Your task to perform on an android device: Do I have any events tomorrow? Image 0: 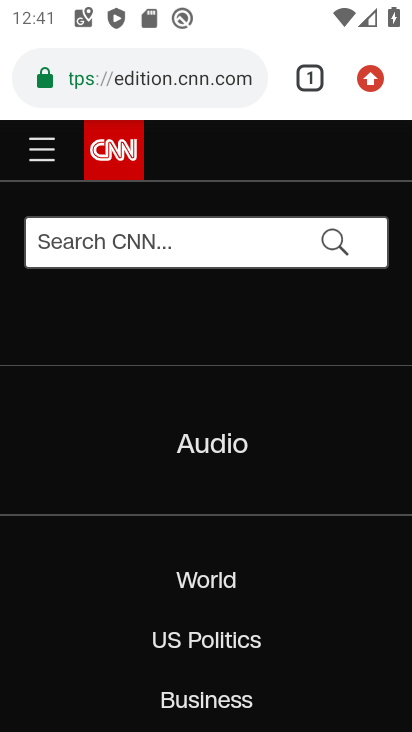
Step 0: press back button
Your task to perform on an android device: Do I have any events tomorrow? Image 1: 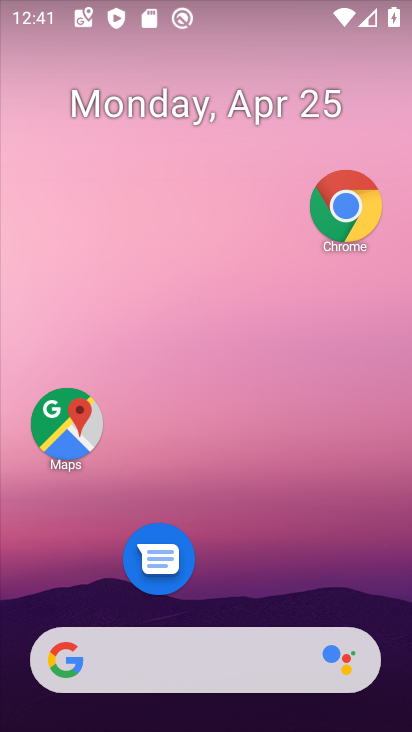
Step 1: drag from (243, 520) to (221, 76)
Your task to perform on an android device: Do I have any events tomorrow? Image 2: 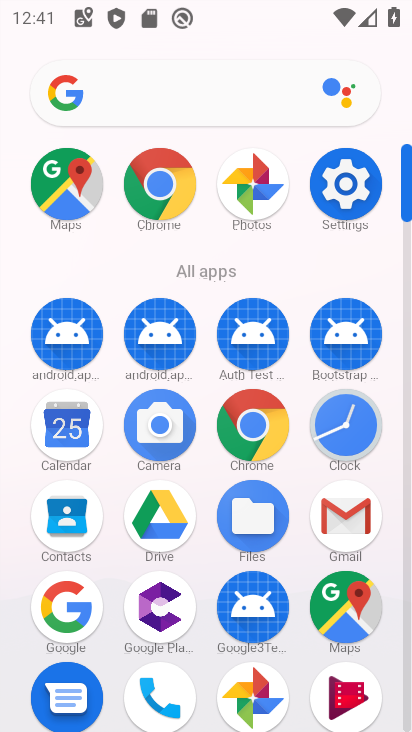
Step 2: click (65, 425)
Your task to perform on an android device: Do I have any events tomorrow? Image 3: 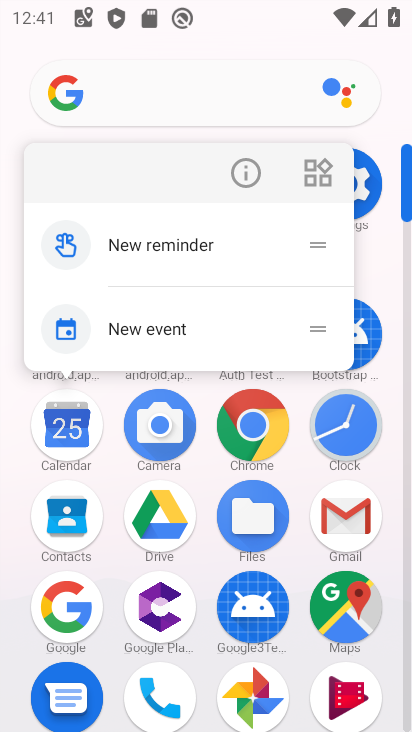
Step 3: click (74, 425)
Your task to perform on an android device: Do I have any events tomorrow? Image 4: 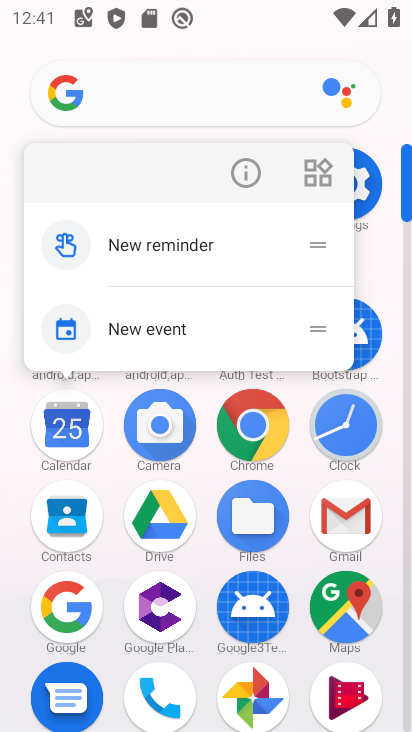
Step 4: click (69, 417)
Your task to perform on an android device: Do I have any events tomorrow? Image 5: 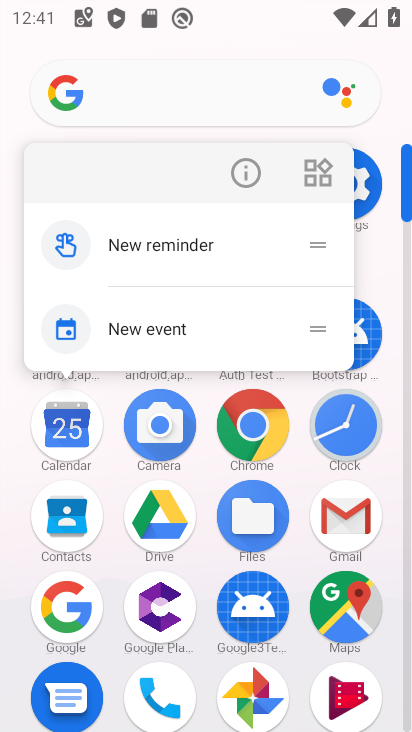
Step 5: click (61, 433)
Your task to perform on an android device: Do I have any events tomorrow? Image 6: 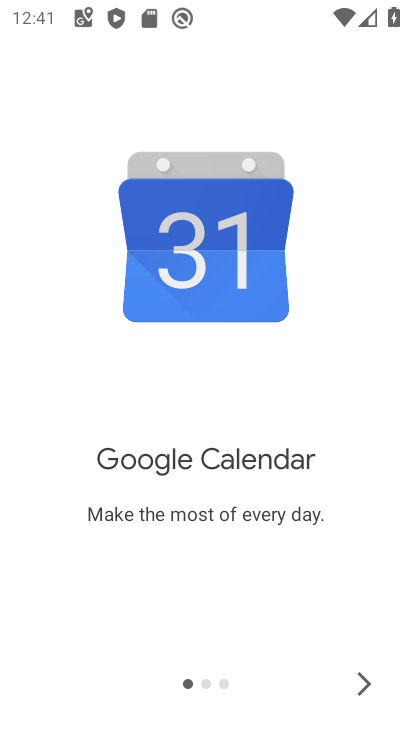
Step 6: click (373, 673)
Your task to perform on an android device: Do I have any events tomorrow? Image 7: 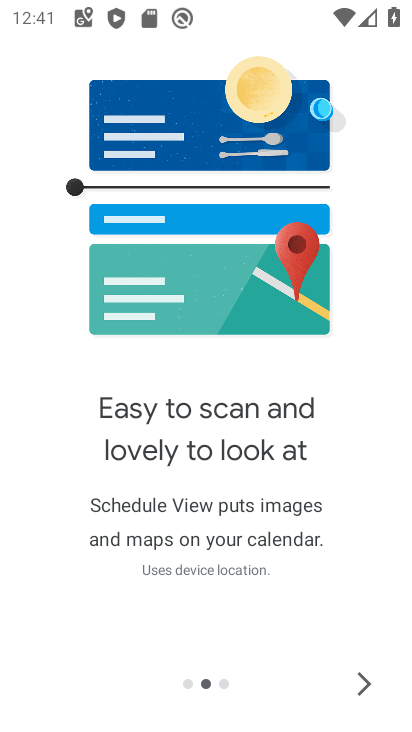
Step 7: click (362, 684)
Your task to perform on an android device: Do I have any events tomorrow? Image 8: 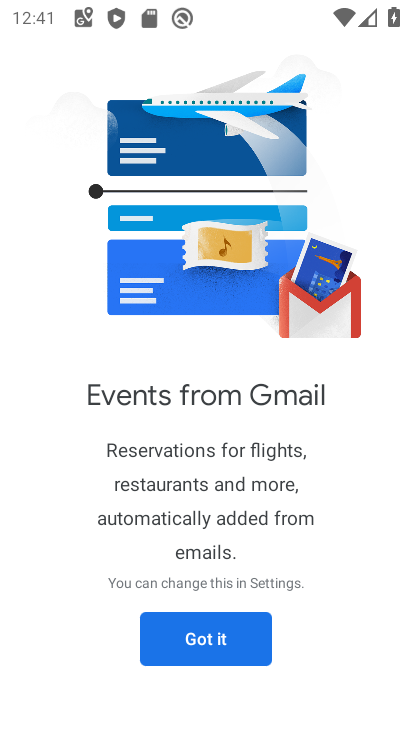
Step 8: click (227, 626)
Your task to perform on an android device: Do I have any events tomorrow? Image 9: 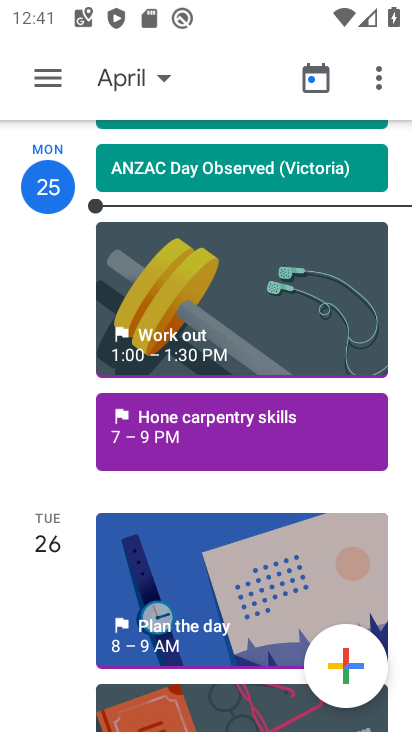
Step 9: drag from (236, 627) to (310, 151)
Your task to perform on an android device: Do I have any events tomorrow? Image 10: 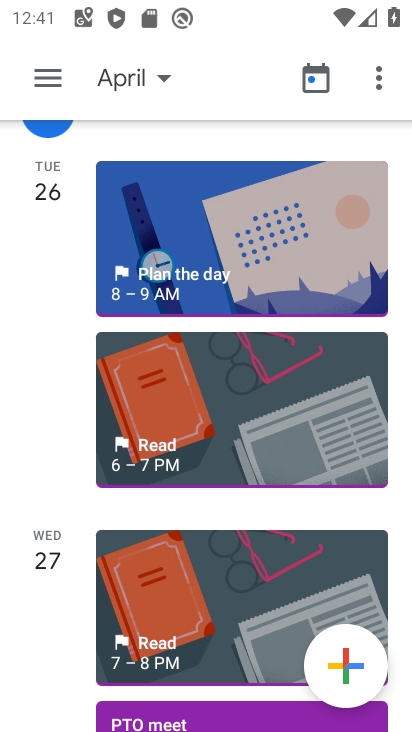
Step 10: click (219, 258)
Your task to perform on an android device: Do I have any events tomorrow? Image 11: 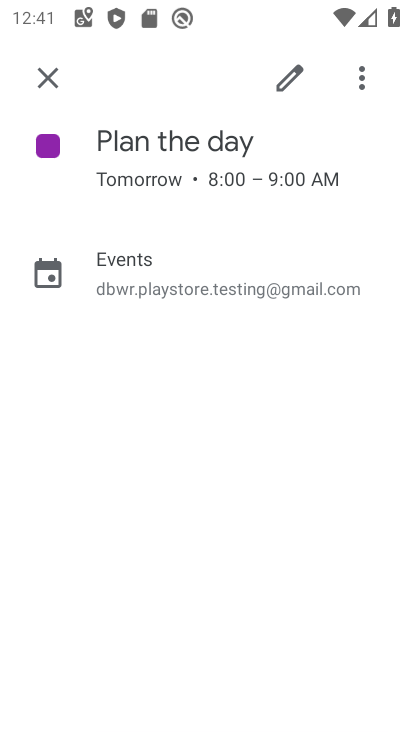
Step 11: task complete